Your task to perform on an android device: Go to Android settings Image 0: 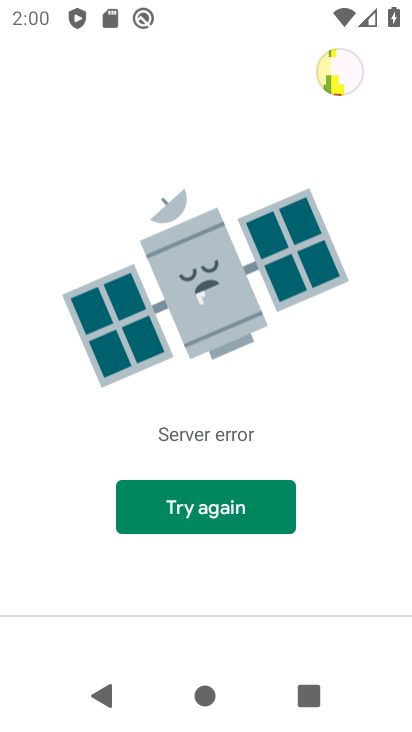
Step 0: press home button
Your task to perform on an android device: Go to Android settings Image 1: 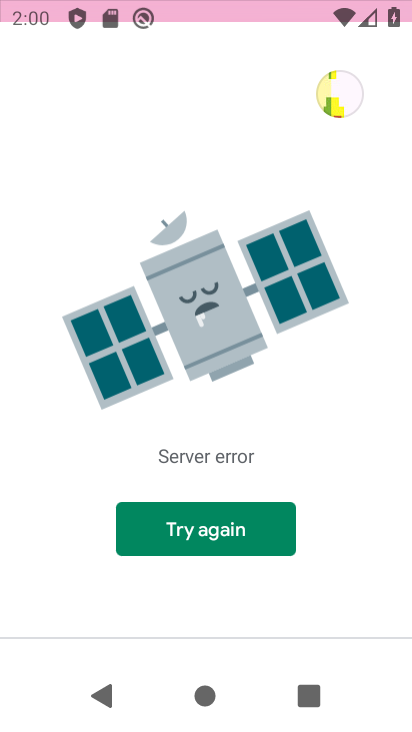
Step 1: press home button
Your task to perform on an android device: Go to Android settings Image 2: 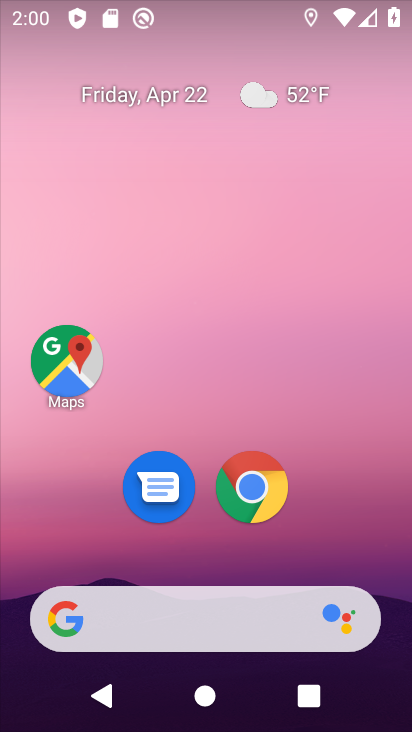
Step 2: drag from (244, 557) to (360, 9)
Your task to perform on an android device: Go to Android settings Image 3: 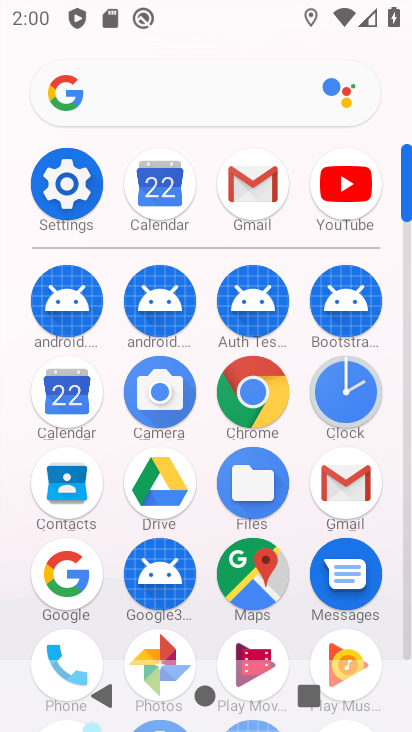
Step 3: click (77, 199)
Your task to perform on an android device: Go to Android settings Image 4: 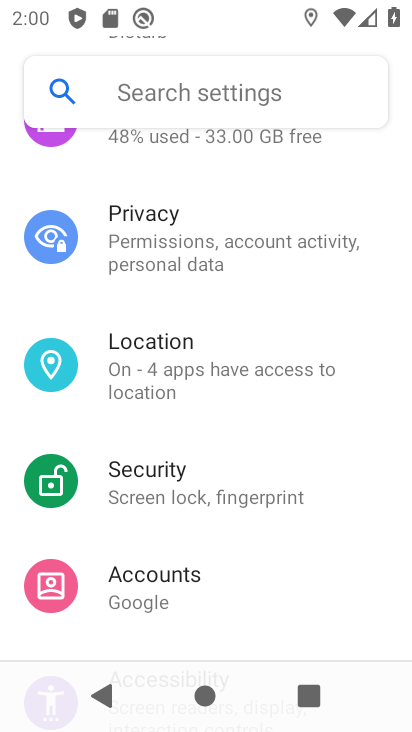
Step 4: drag from (155, 578) to (262, 3)
Your task to perform on an android device: Go to Android settings Image 5: 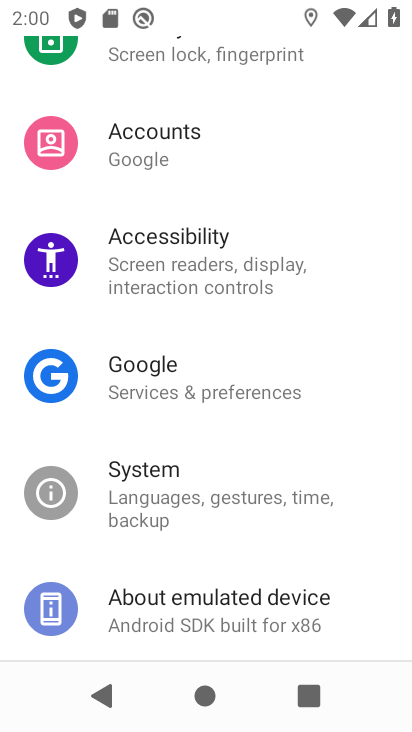
Step 5: drag from (191, 475) to (235, 209)
Your task to perform on an android device: Go to Android settings Image 6: 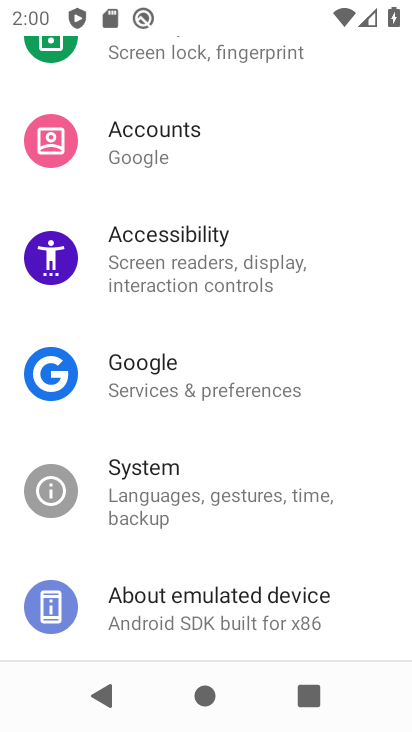
Step 6: click (160, 584)
Your task to perform on an android device: Go to Android settings Image 7: 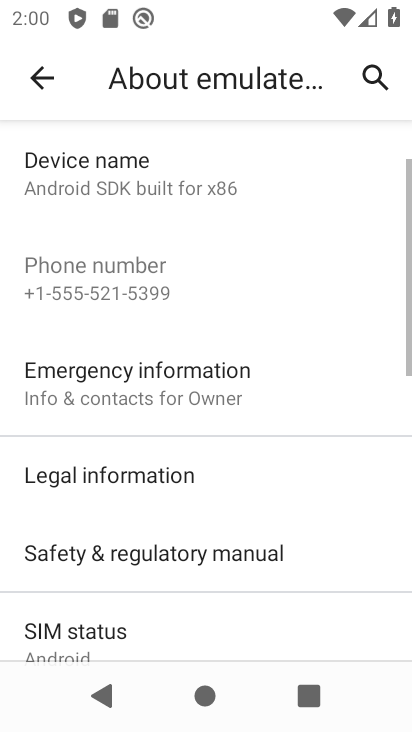
Step 7: drag from (178, 540) to (229, 228)
Your task to perform on an android device: Go to Android settings Image 8: 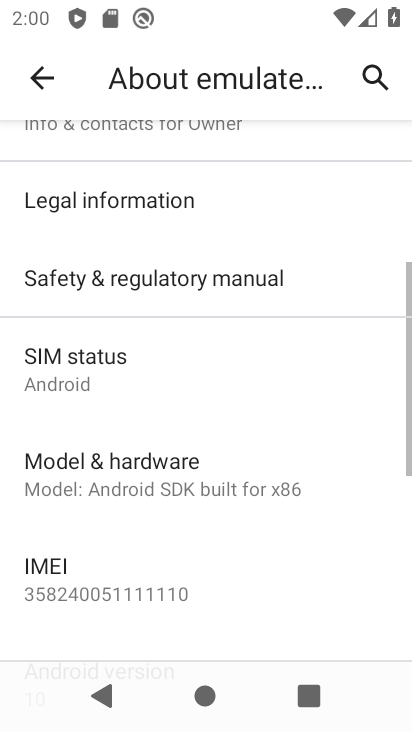
Step 8: drag from (171, 517) to (210, 181)
Your task to perform on an android device: Go to Android settings Image 9: 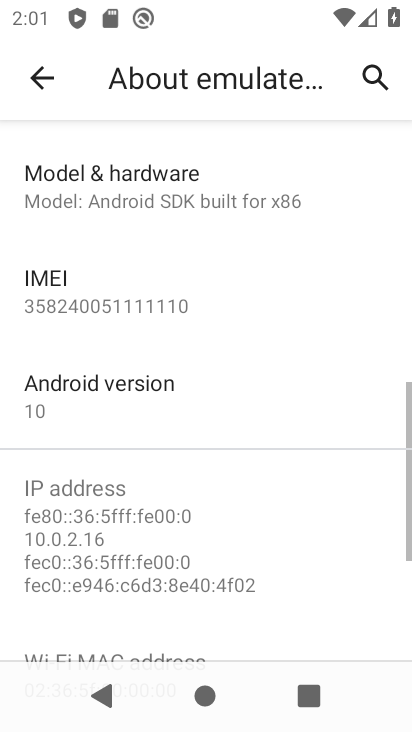
Step 9: click (136, 404)
Your task to perform on an android device: Go to Android settings Image 10: 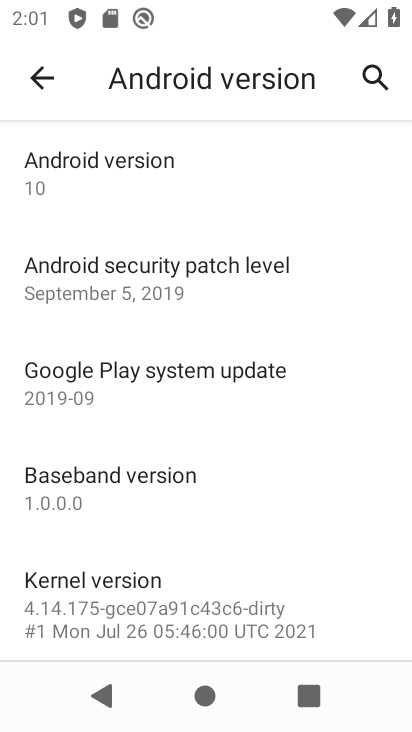
Step 10: task complete